Your task to perform on an android device: change the clock display to digital Image 0: 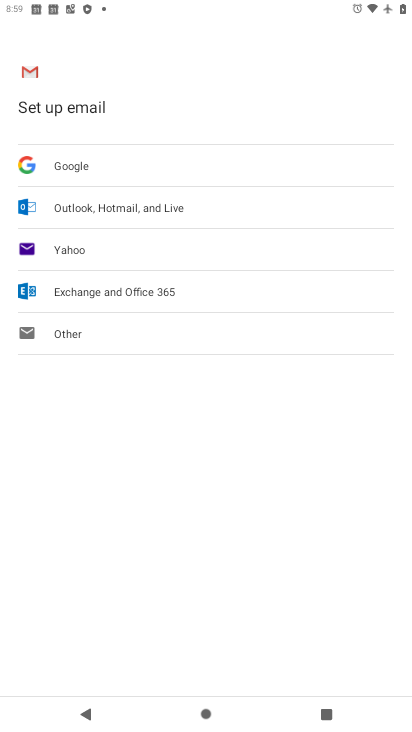
Step 0: press back button
Your task to perform on an android device: change the clock display to digital Image 1: 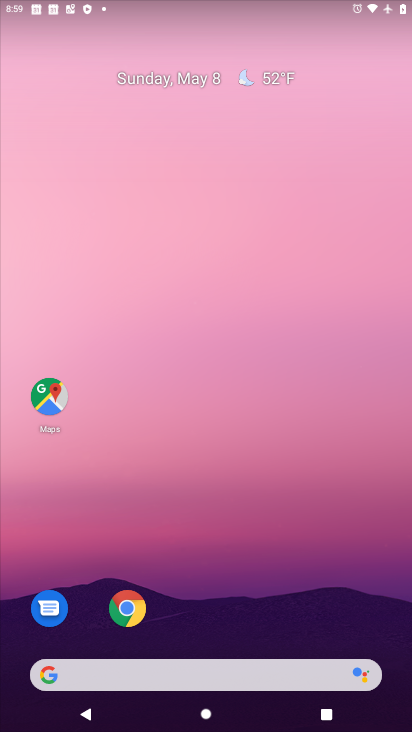
Step 1: drag from (265, 588) to (183, 6)
Your task to perform on an android device: change the clock display to digital Image 2: 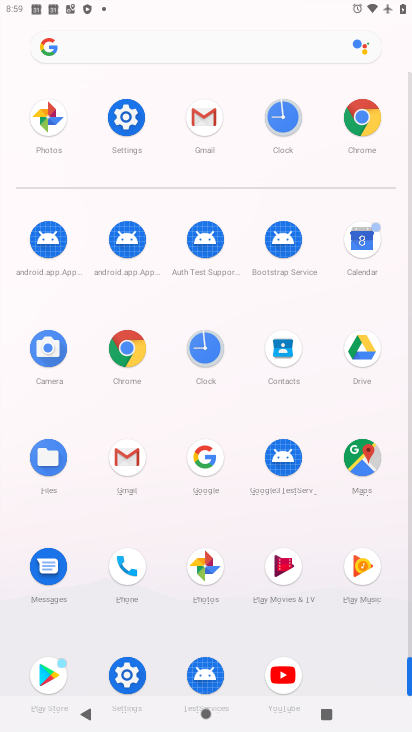
Step 2: click (280, 114)
Your task to perform on an android device: change the clock display to digital Image 3: 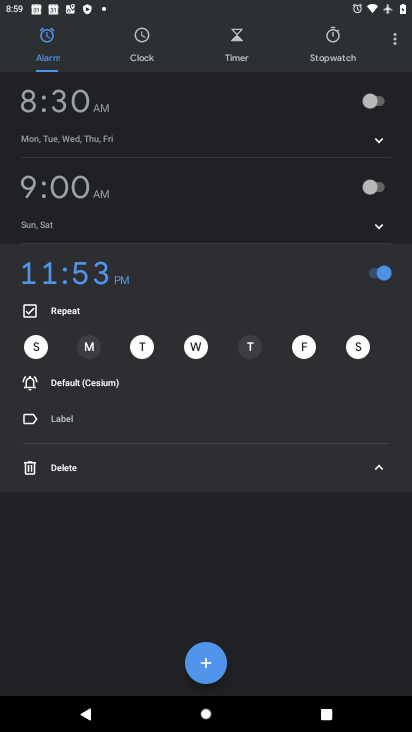
Step 3: task complete